Your task to perform on an android device: find photos in the google photos app Image 0: 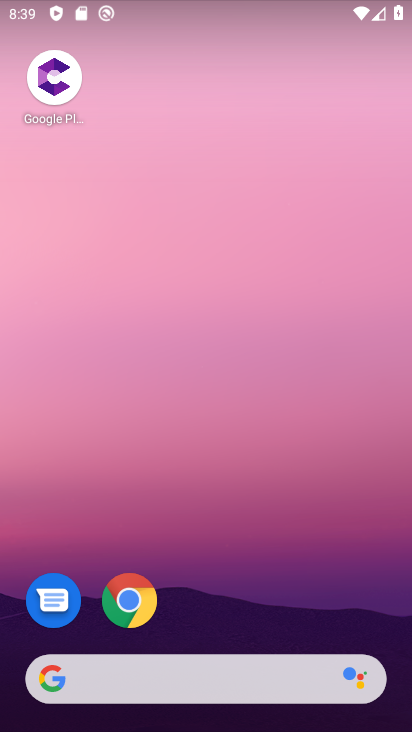
Step 0: drag from (248, 605) to (245, 5)
Your task to perform on an android device: find photos in the google photos app Image 1: 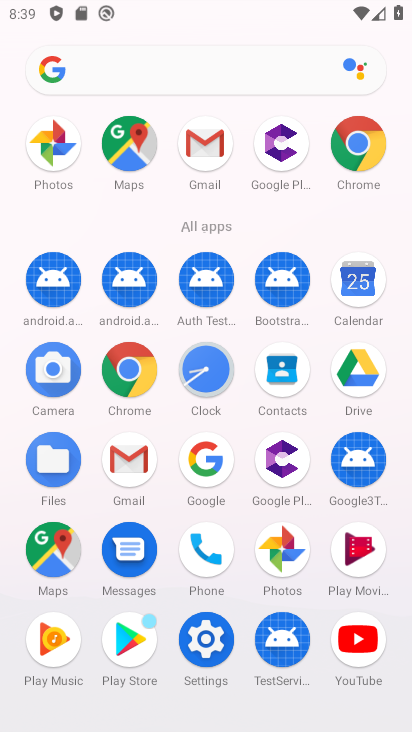
Step 1: drag from (12, 537) to (29, 211)
Your task to perform on an android device: find photos in the google photos app Image 2: 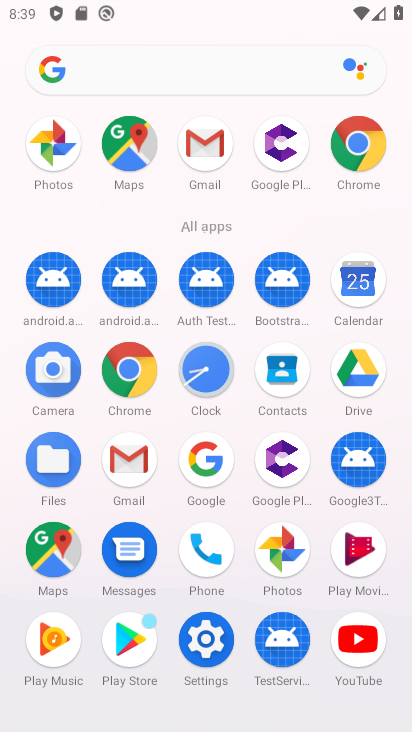
Step 2: click (274, 548)
Your task to perform on an android device: find photos in the google photos app Image 3: 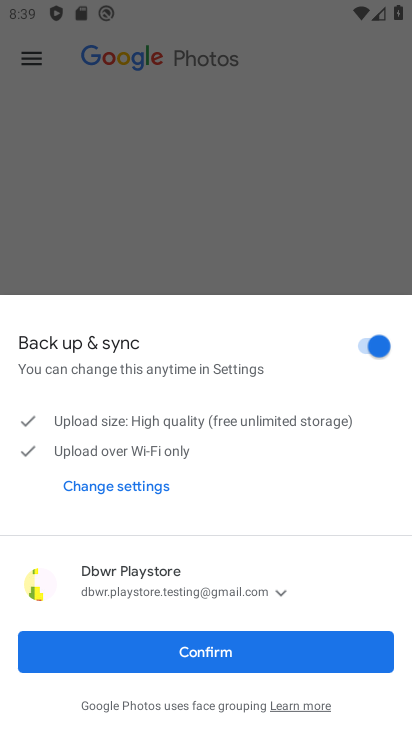
Step 3: click (182, 652)
Your task to perform on an android device: find photos in the google photos app Image 4: 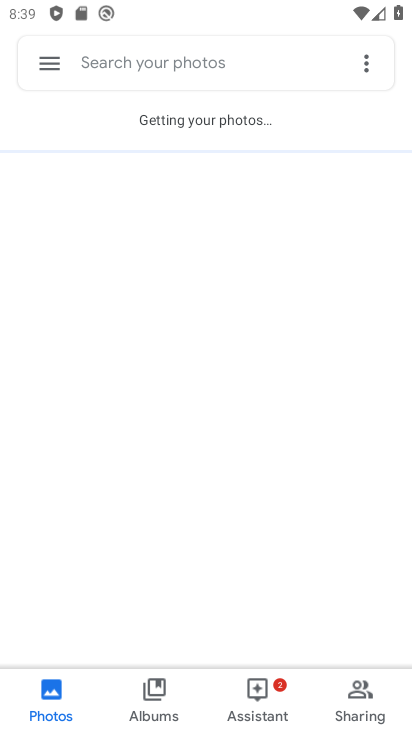
Step 4: task complete